Your task to perform on an android device: change timer sound Image 0: 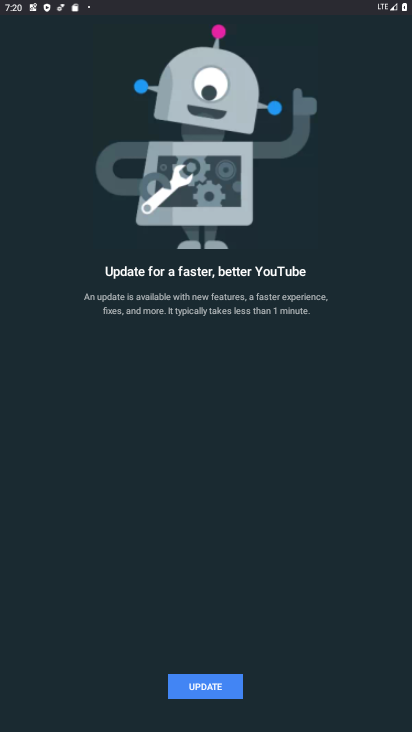
Step 0: press home button
Your task to perform on an android device: change timer sound Image 1: 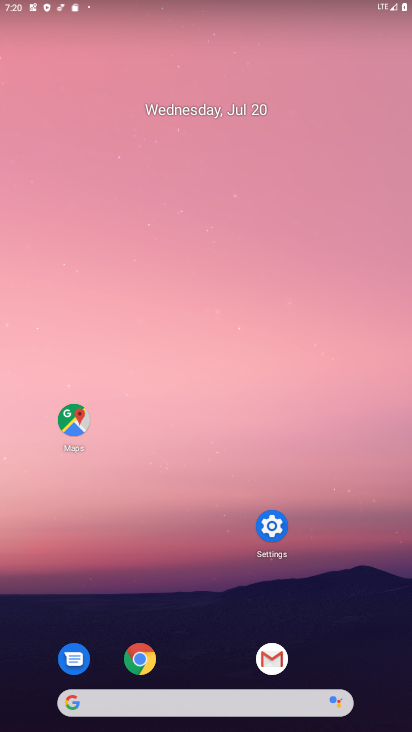
Step 1: drag from (208, 693) to (193, 252)
Your task to perform on an android device: change timer sound Image 2: 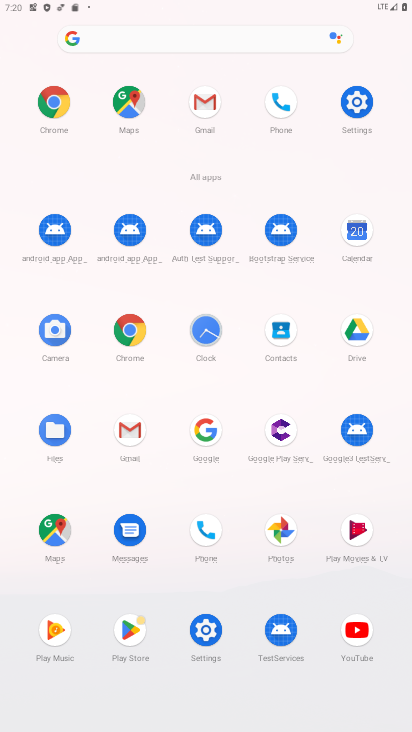
Step 2: click (359, 112)
Your task to perform on an android device: change timer sound Image 3: 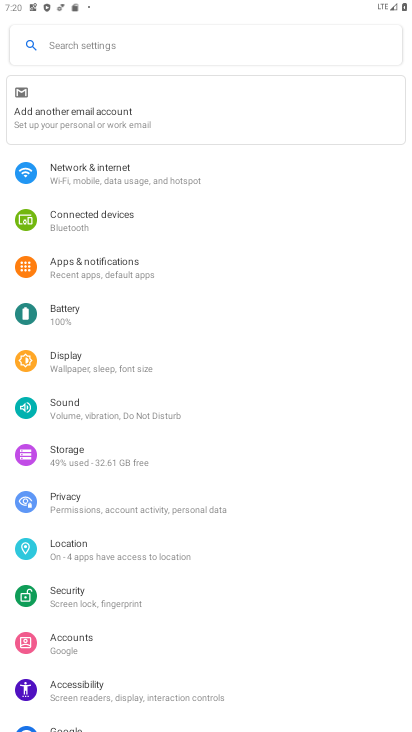
Step 3: click (93, 406)
Your task to perform on an android device: change timer sound Image 4: 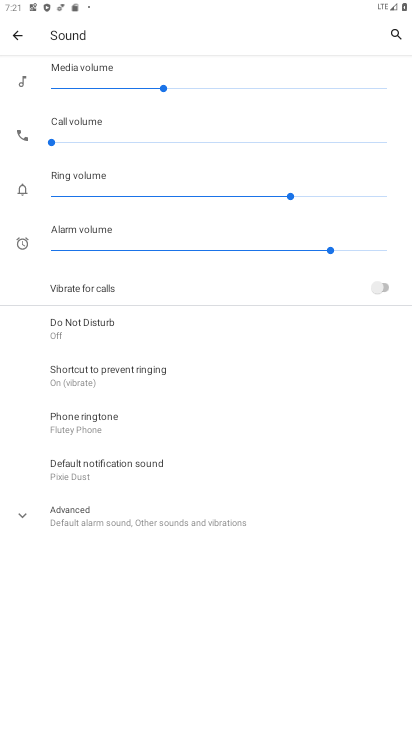
Step 4: task complete